Your task to perform on an android device: create a new album in the google photos Image 0: 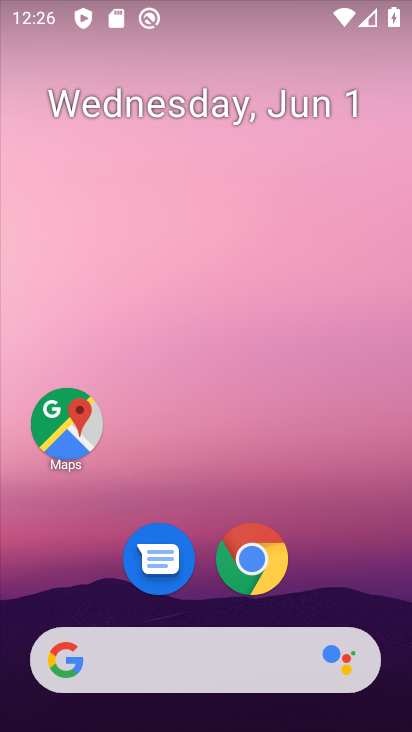
Step 0: drag from (410, 693) to (319, 158)
Your task to perform on an android device: create a new album in the google photos Image 1: 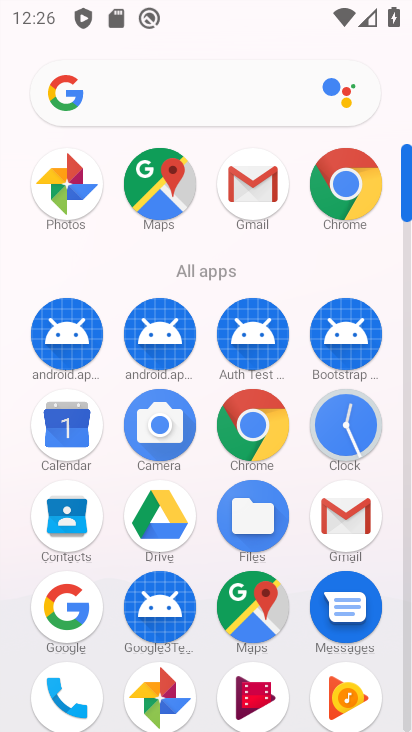
Step 1: click (169, 677)
Your task to perform on an android device: create a new album in the google photos Image 2: 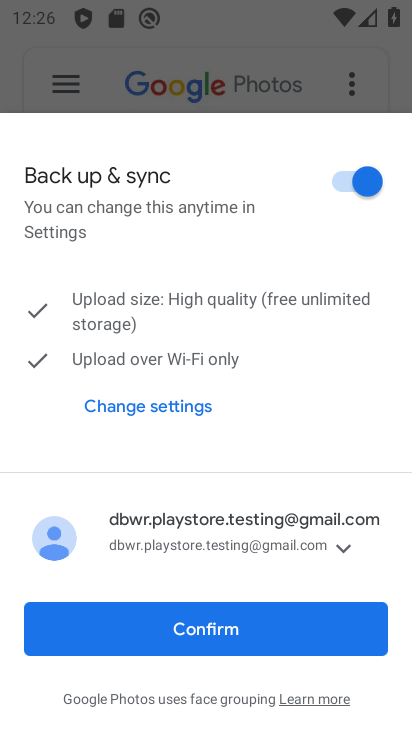
Step 2: click (293, 627)
Your task to perform on an android device: create a new album in the google photos Image 3: 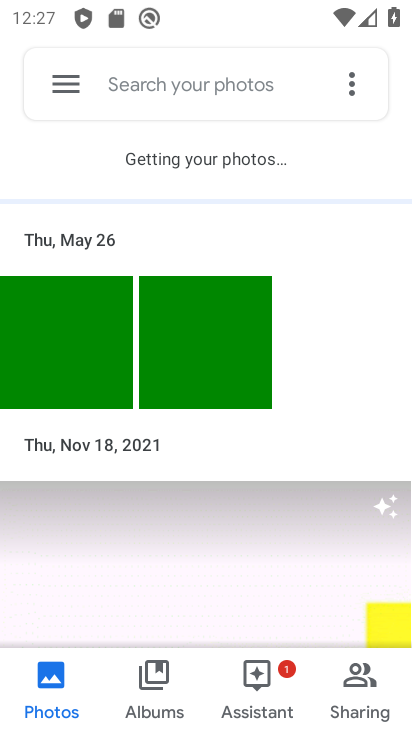
Step 3: click (346, 78)
Your task to perform on an android device: create a new album in the google photos Image 4: 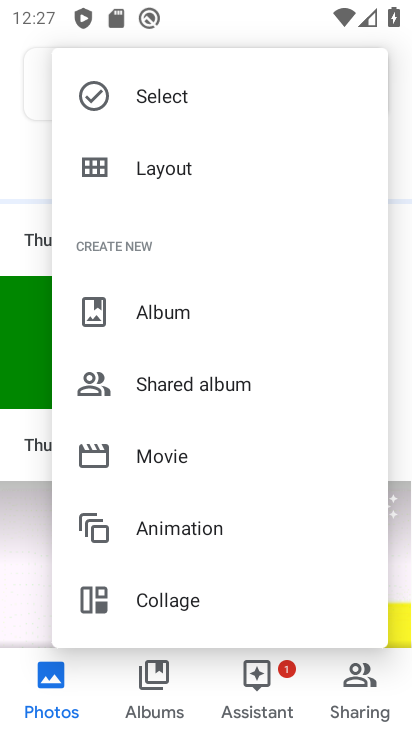
Step 4: click (160, 310)
Your task to perform on an android device: create a new album in the google photos Image 5: 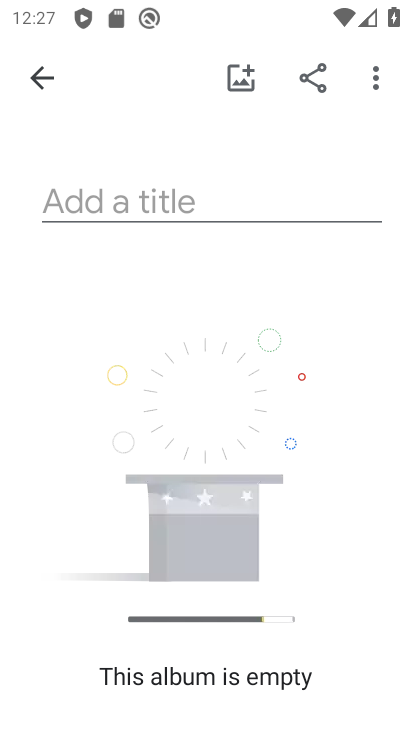
Step 5: press home button
Your task to perform on an android device: create a new album in the google photos Image 6: 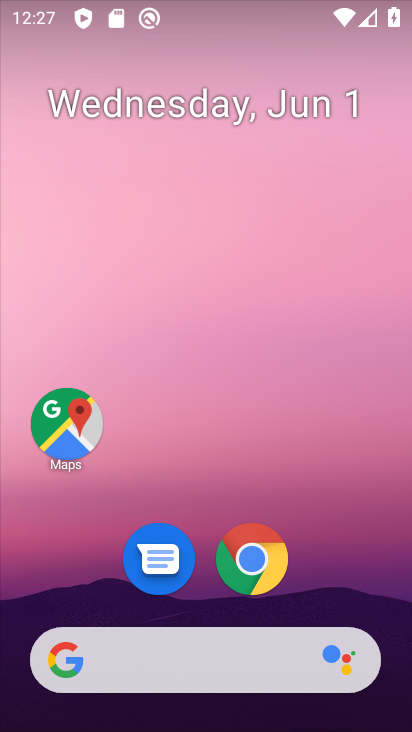
Step 6: drag from (396, 697) to (342, 256)
Your task to perform on an android device: create a new album in the google photos Image 7: 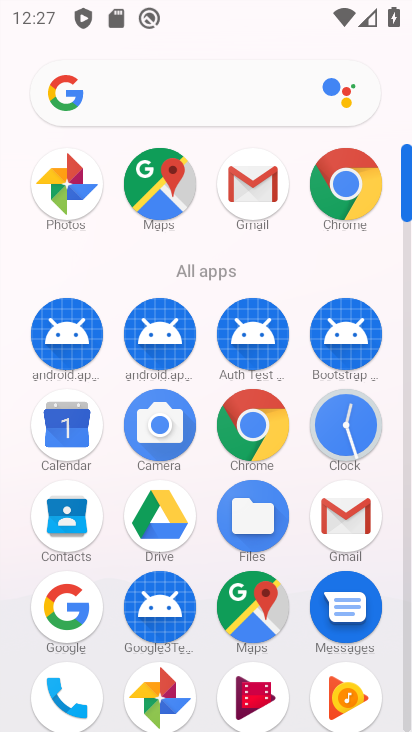
Step 7: click (81, 207)
Your task to perform on an android device: create a new album in the google photos Image 8: 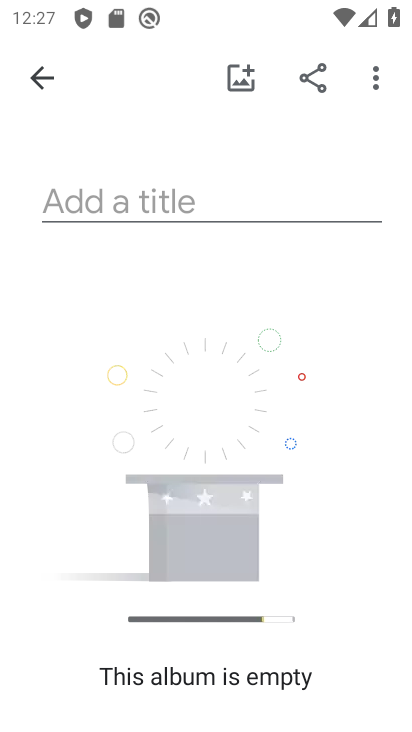
Step 8: click (170, 201)
Your task to perform on an android device: create a new album in the google photos Image 9: 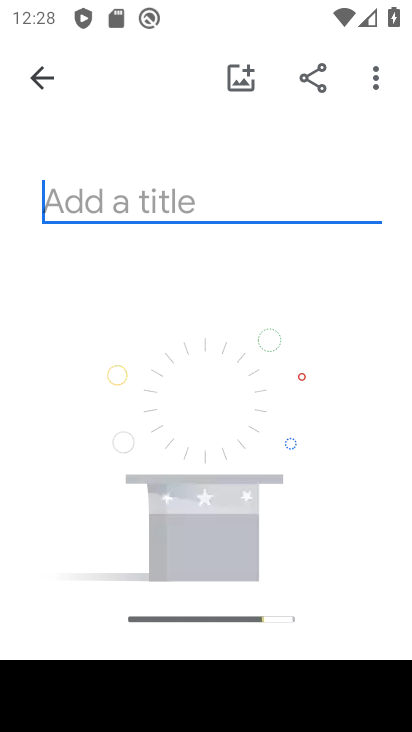
Step 9: type "drtggfg"
Your task to perform on an android device: create a new album in the google photos Image 10: 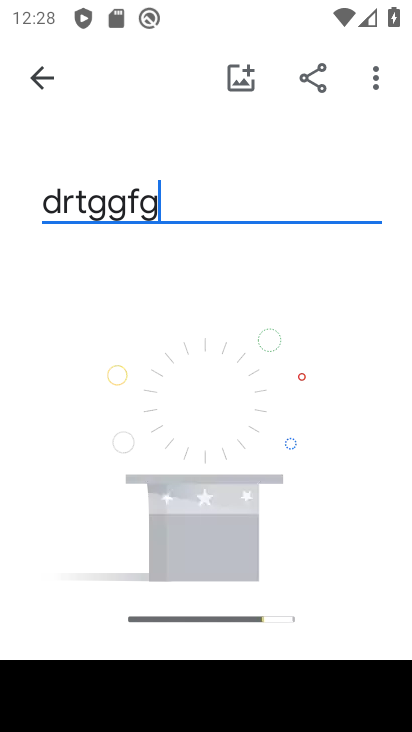
Step 10: click (213, 427)
Your task to perform on an android device: create a new album in the google photos Image 11: 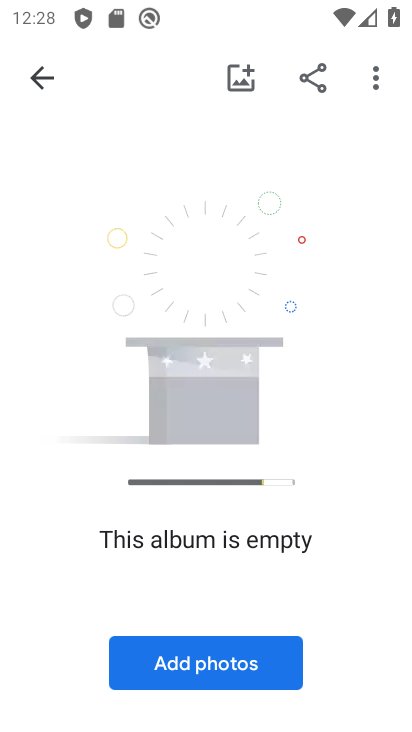
Step 11: click (219, 658)
Your task to perform on an android device: create a new album in the google photos Image 12: 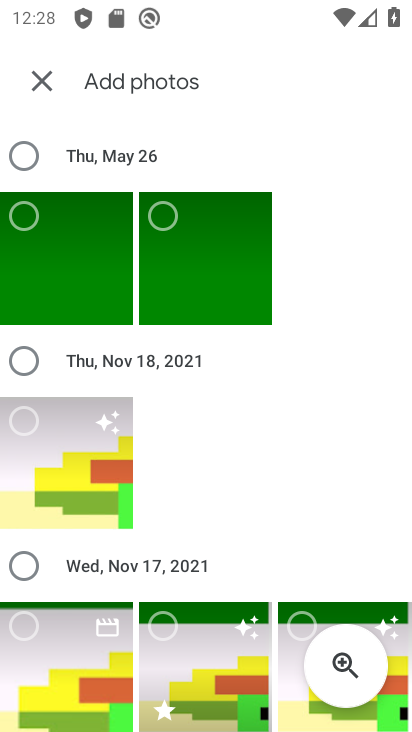
Step 12: click (26, 626)
Your task to perform on an android device: create a new album in the google photos Image 13: 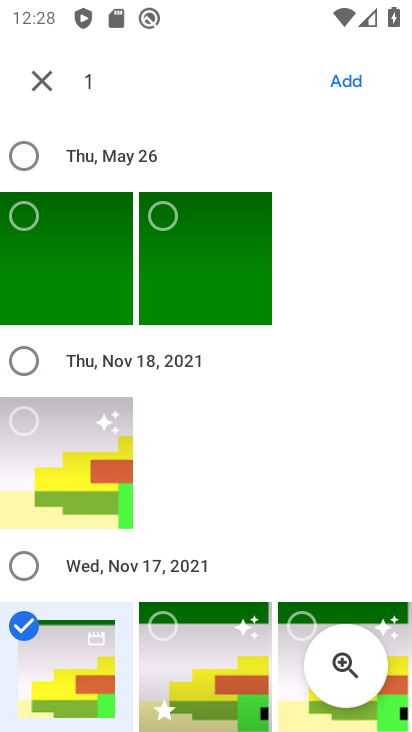
Step 13: click (21, 626)
Your task to perform on an android device: create a new album in the google photos Image 14: 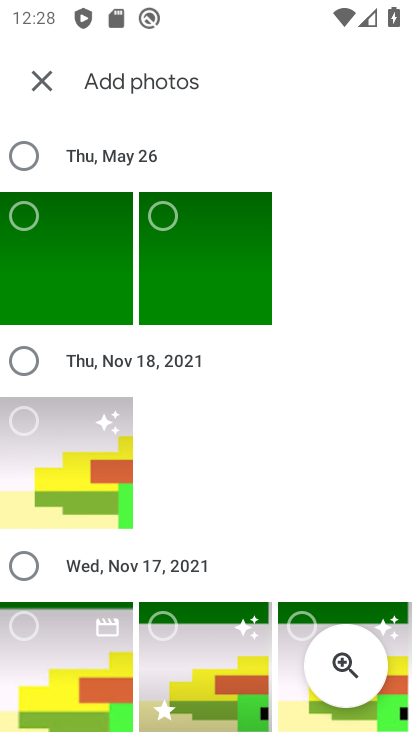
Step 14: click (27, 409)
Your task to perform on an android device: create a new album in the google photos Image 15: 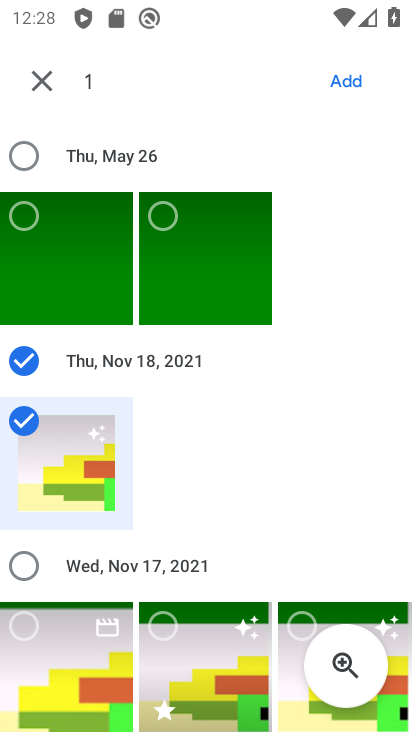
Step 15: click (171, 628)
Your task to perform on an android device: create a new album in the google photos Image 16: 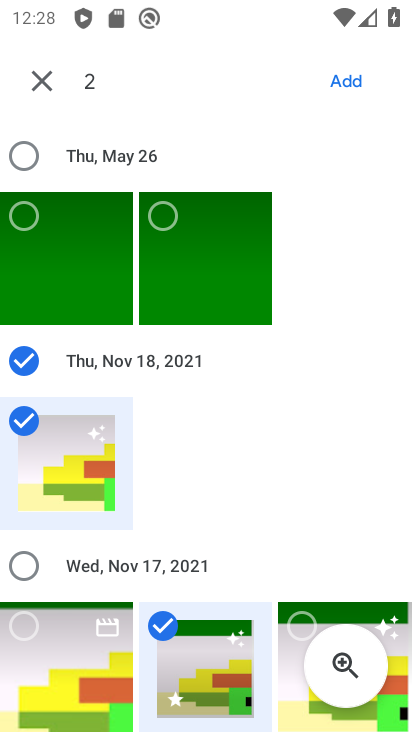
Step 16: click (299, 627)
Your task to perform on an android device: create a new album in the google photos Image 17: 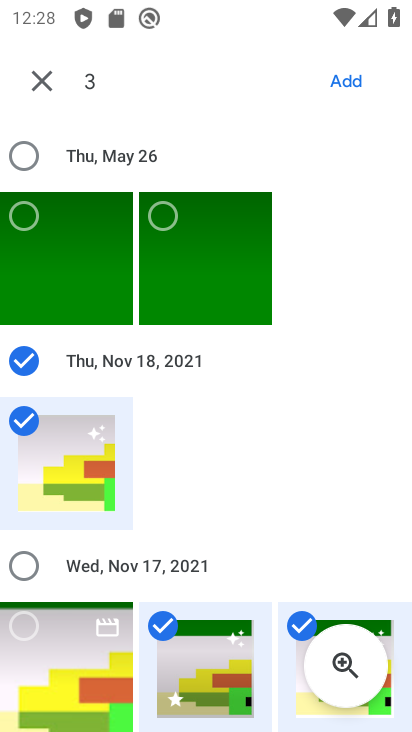
Step 17: click (346, 82)
Your task to perform on an android device: create a new album in the google photos Image 18: 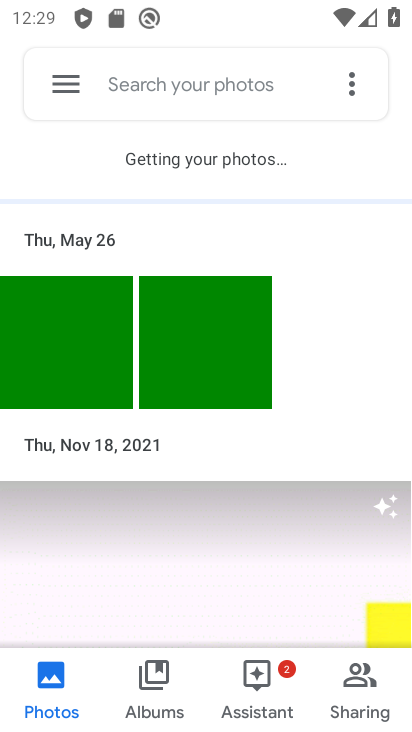
Step 18: task complete